Your task to perform on an android device: read, delete, or share a saved page in the chrome app Image 0: 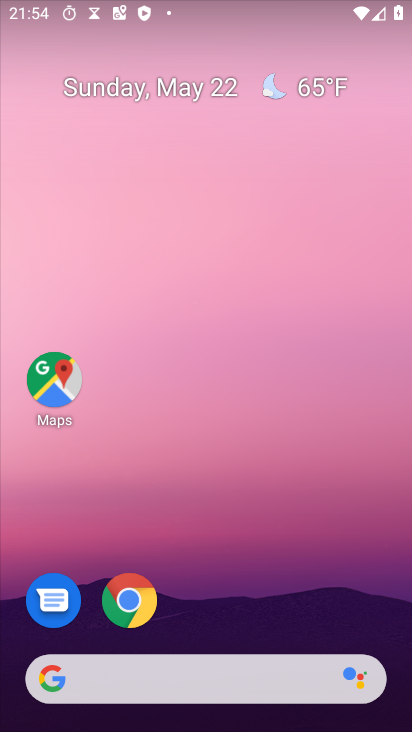
Step 0: click (135, 599)
Your task to perform on an android device: read, delete, or share a saved page in the chrome app Image 1: 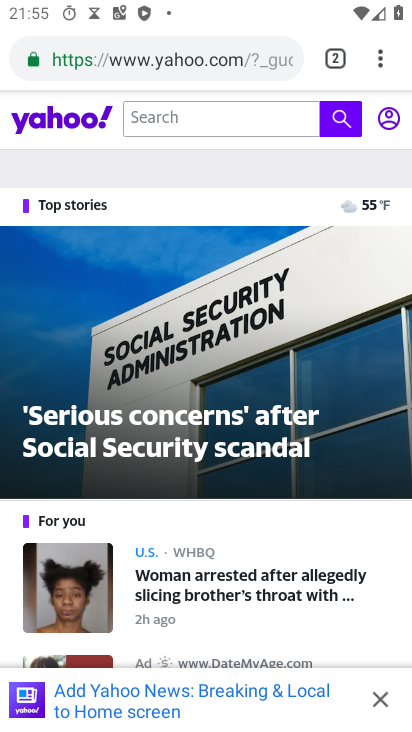
Step 1: click (382, 52)
Your task to perform on an android device: read, delete, or share a saved page in the chrome app Image 2: 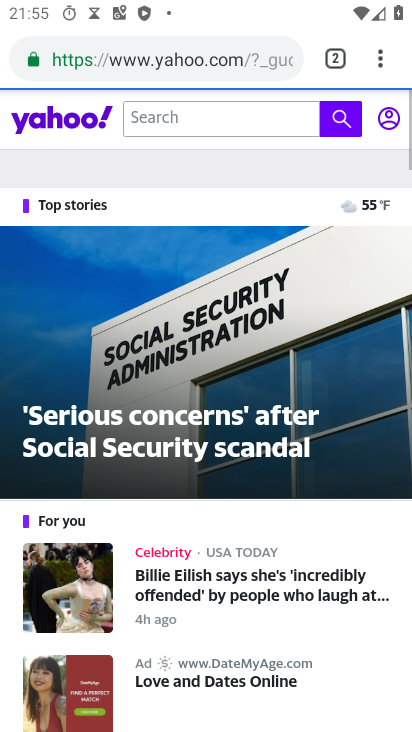
Step 2: click (383, 66)
Your task to perform on an android device: read, delete, or share a saved page in the chrome app Image 3: 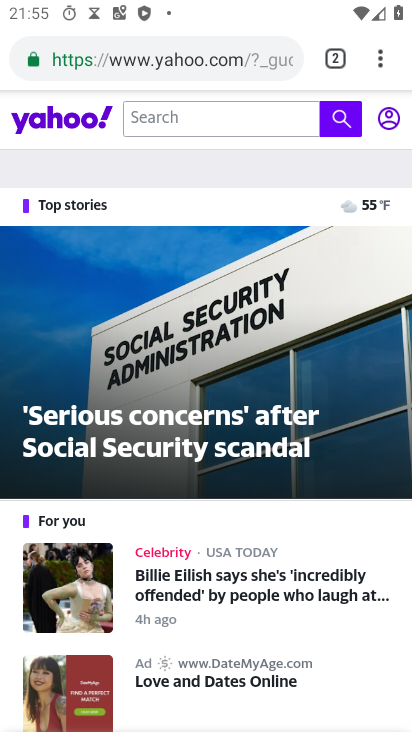
Step 3: click (383, 66)
Your task to perform on an android device: read, delete, or share a saved page in the chrome app Image 4: 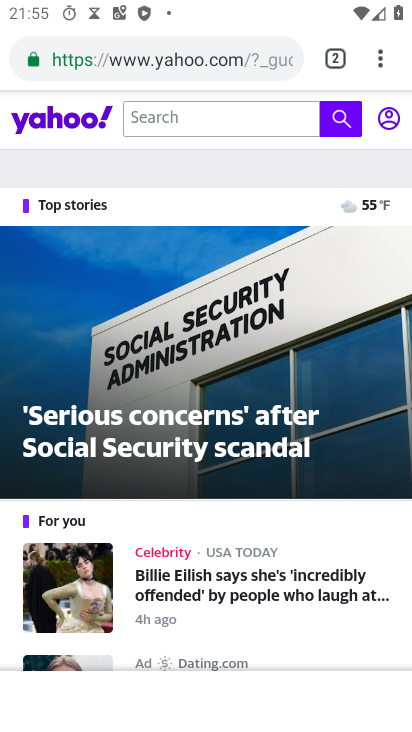
Step 4: click (383, 64)
Your task to perform on an android device: read, delete, or share a saved page in the chrome app Image 5: 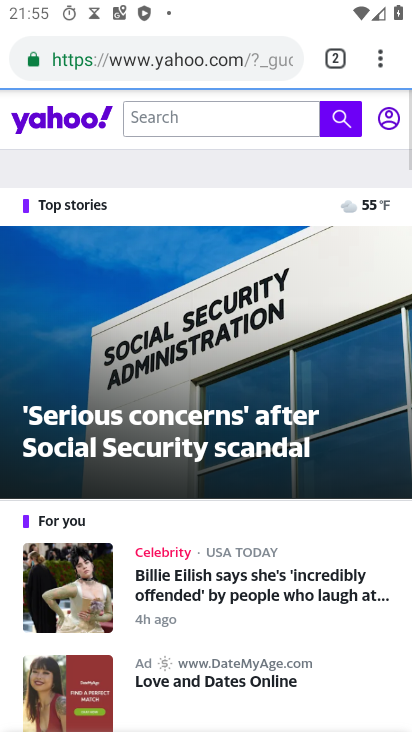
Step 5: click (383, 64)
Your task to perform on an android device: read, delete, or share a saved page in the chrome app Image 6: 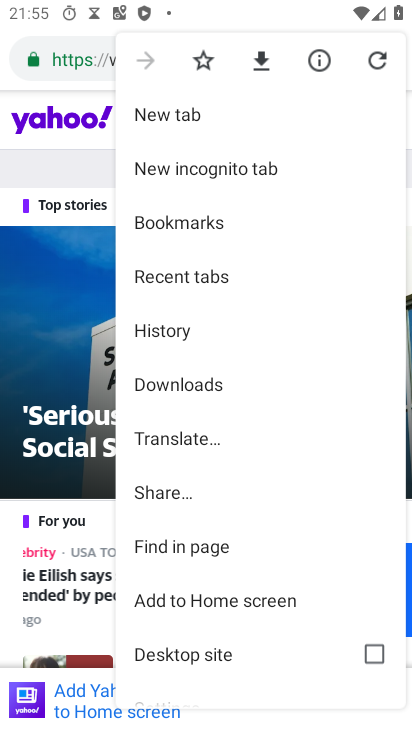
Step 6: task complete